Your task to perform on an android device: Add logitech g pro to the cart on costco, then select checkout. Image 0: 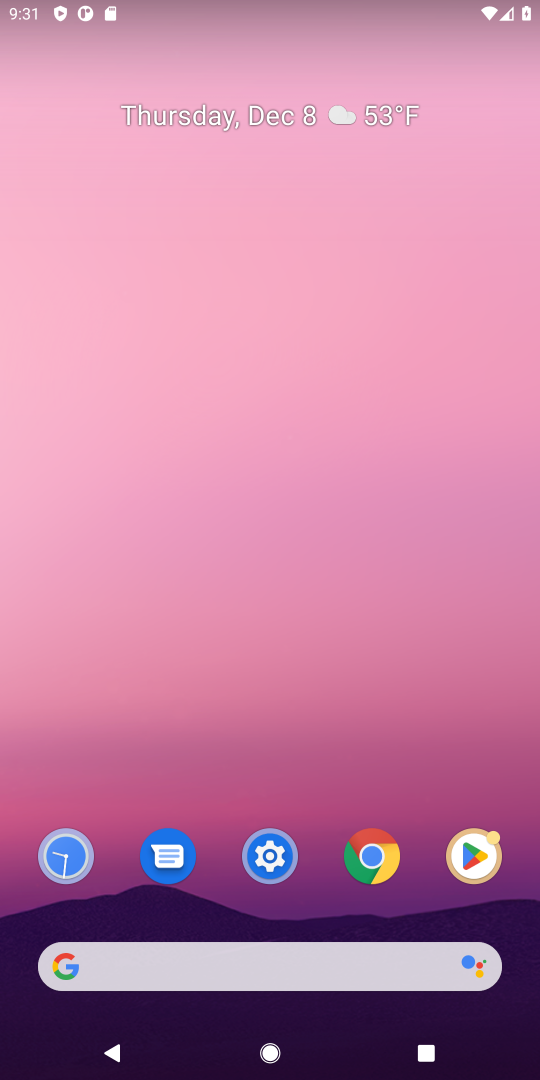
Step 0: press home button
Your task to perform on an android device: Add logitech g pro to the cart on costco, then select checkout. Image 1: 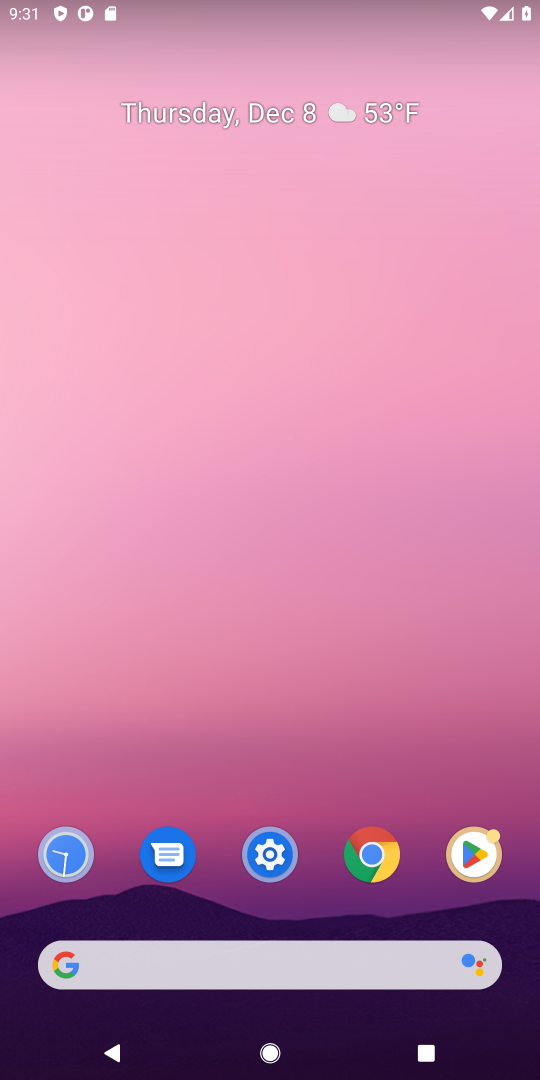
Step 1: click (87, 966)
Your task to perform on an android device: Add logitech g pro to the cart on costco, then select checkout. Image 2: 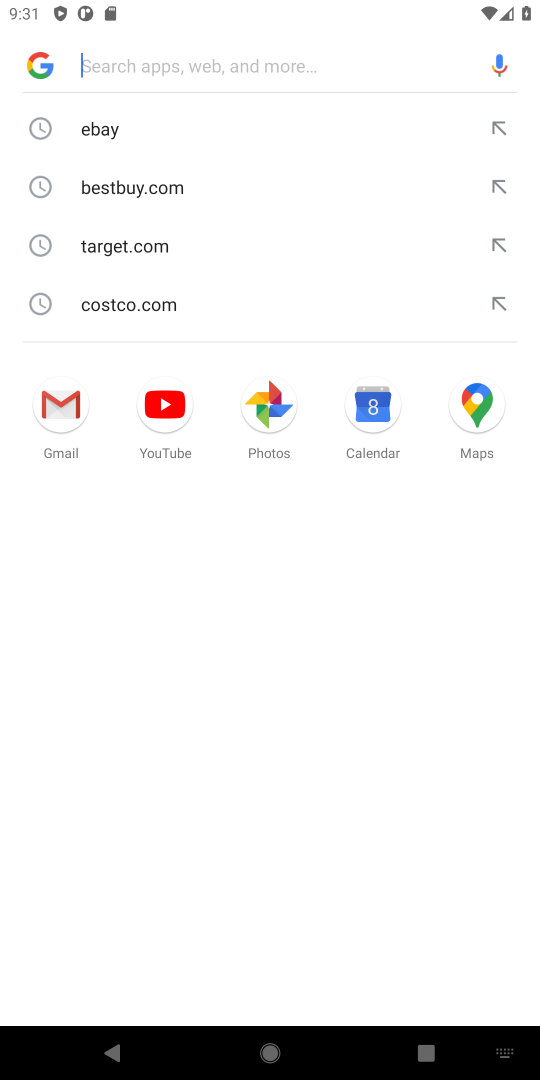
Step 2: press enter
Your task to perform on an android device: Add logitech g pro to the cart on costco, then select checkout. Image 3: 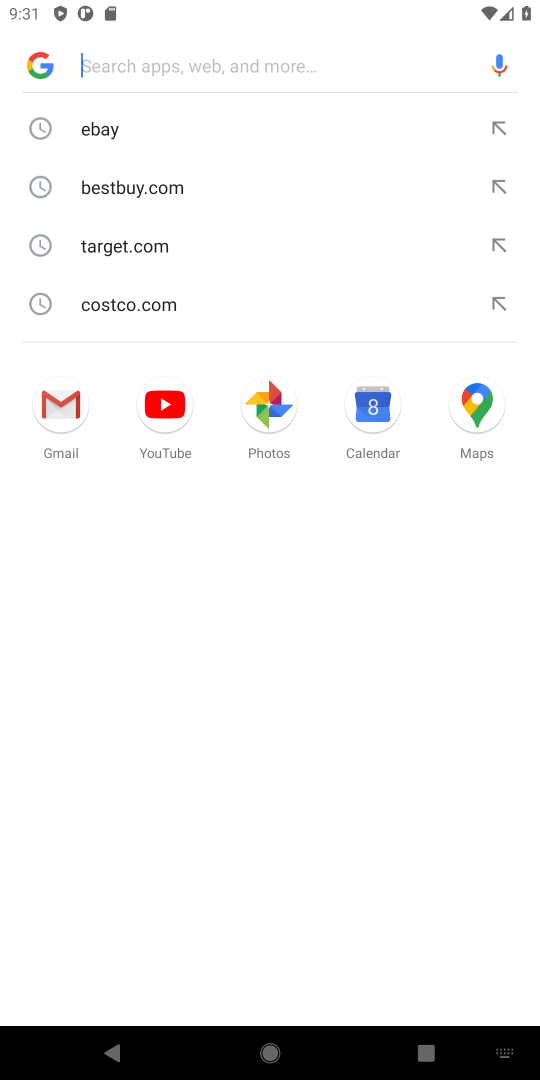
Step 3: type "costco"
Your task to perform on an android device: Add logitech g pro to the cart on costco, then select checkout. Image 4: 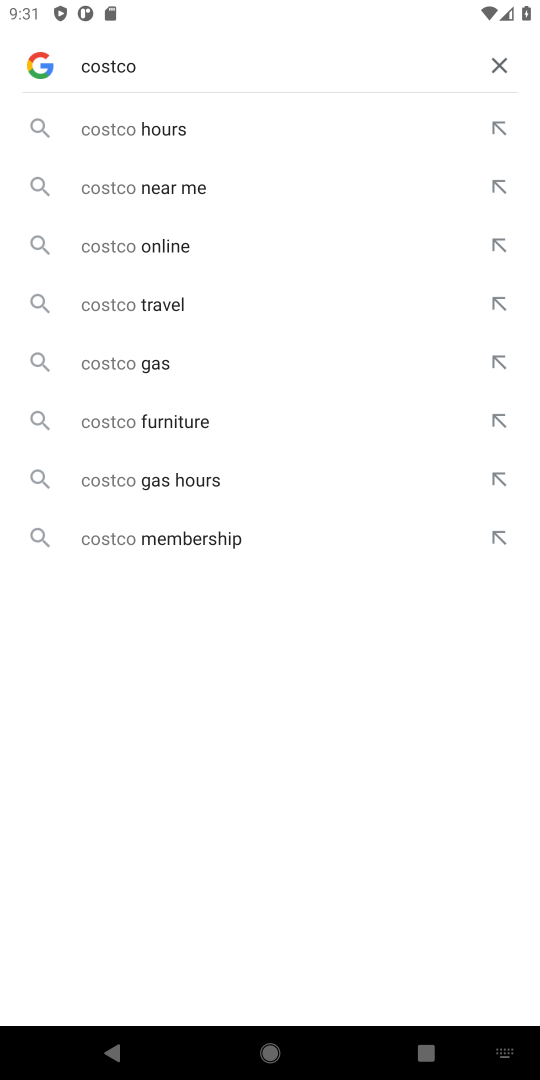
Step 4: press enter
Your task to perform on an android device: Add logitech g pro to the cart on costco, then select checkout. Image 5: 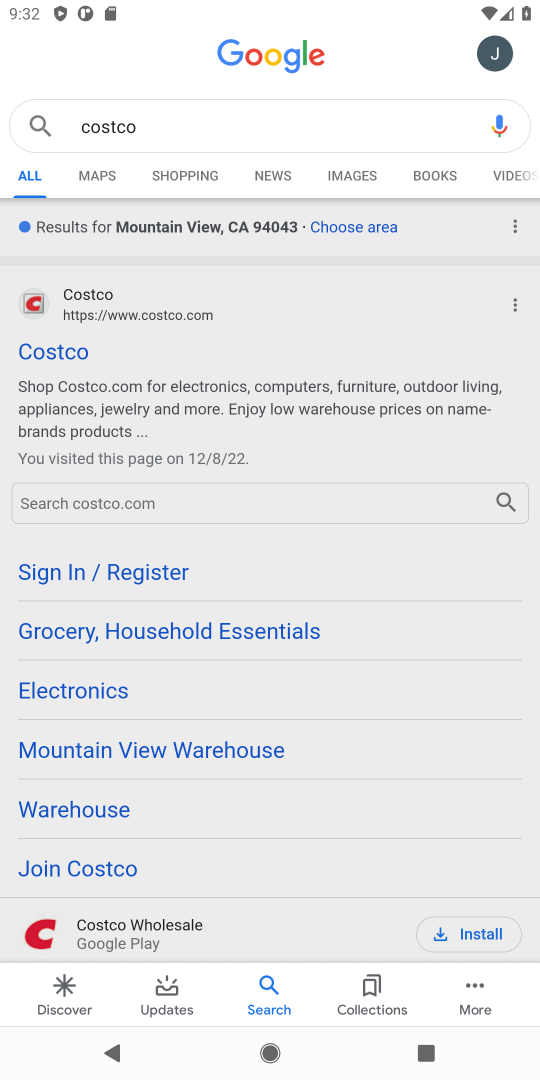
Step 5: click (54, 351)
Your task to perform on an android device: Add logitech g pro to the cart on costco, then select checkout. Image 6: 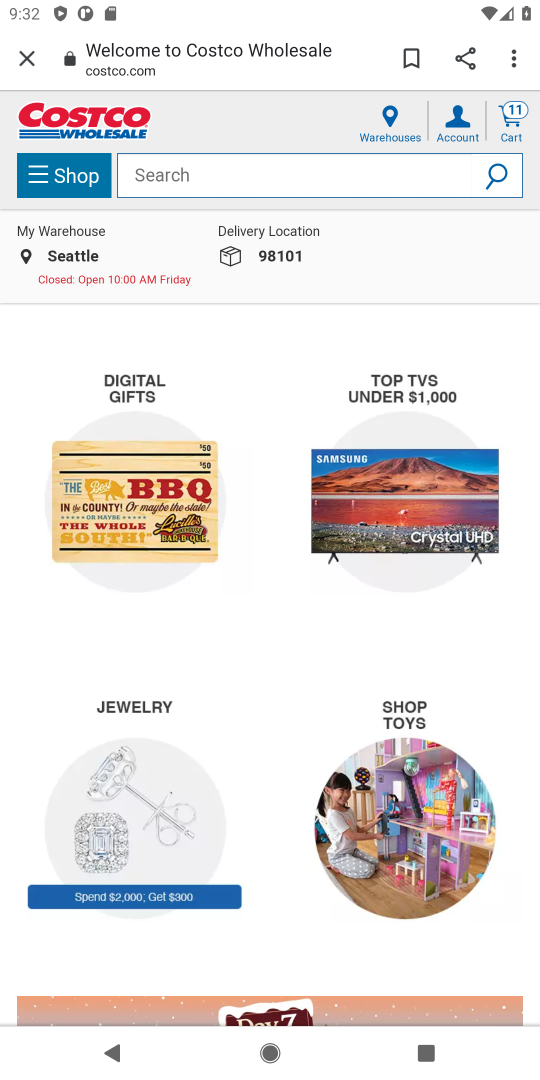
Step 6: click (159, 171)
Your task to perform on an android device: Add logitech g pro to the cart on costco, then select checkout. Image 7: 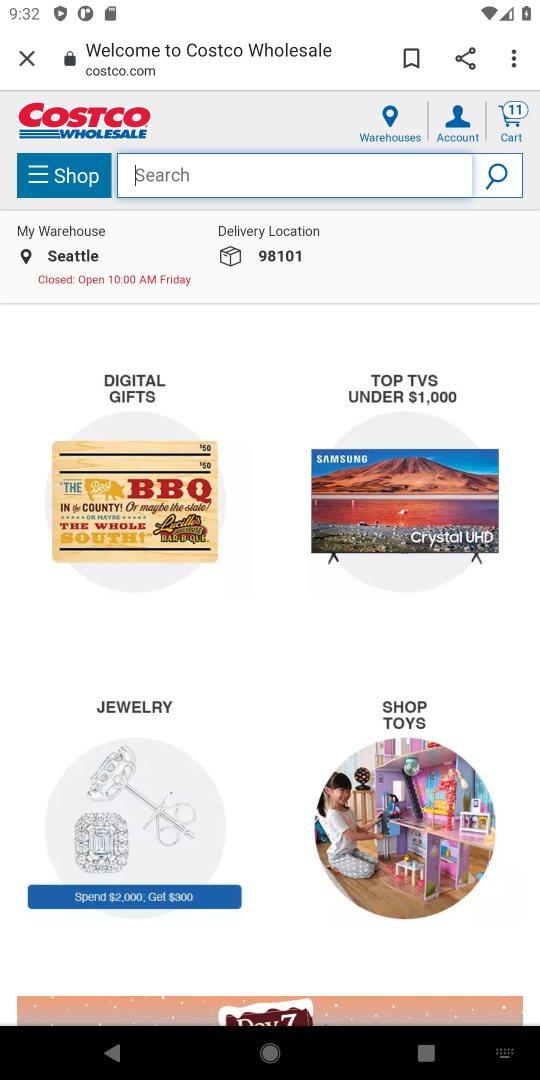
Step 7: type "logitech g pro"
Your task to perform on an android device: Add logitech g pro to the cart on costco, then select checkout. Image 8: 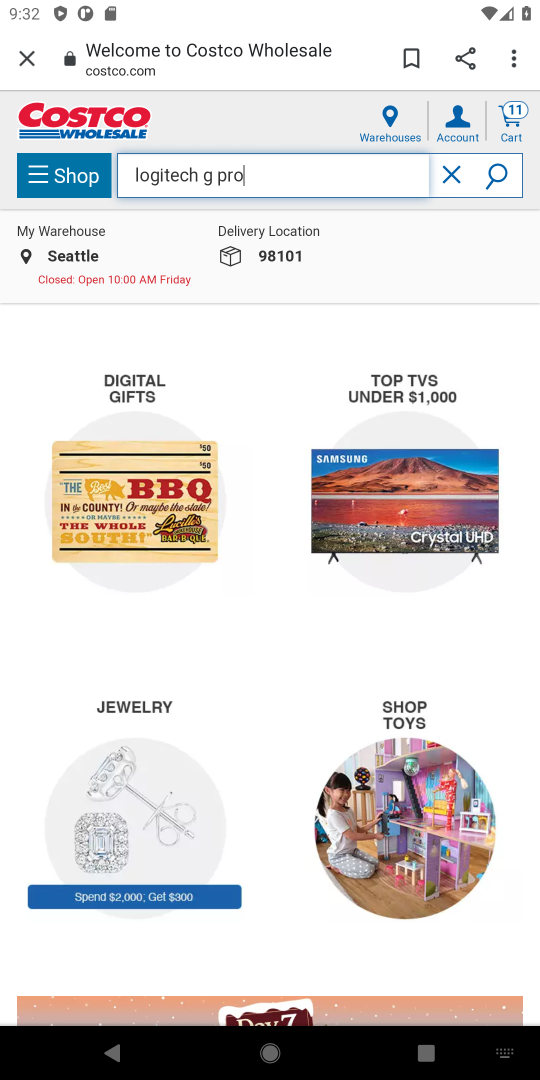
Step 8: press enter
Your task to perform on an android device: Add logitech g pro to the cart on costco, then select checkout. Image 9: 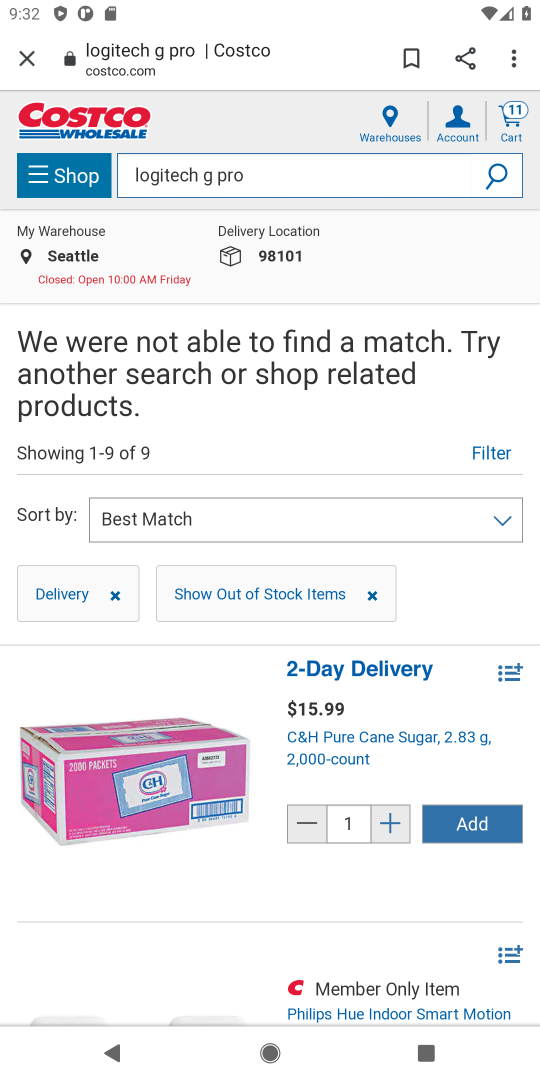
Step 9: task complete